Your task to perform on an android device: turn off notifications settings in the gmail app Image 0: 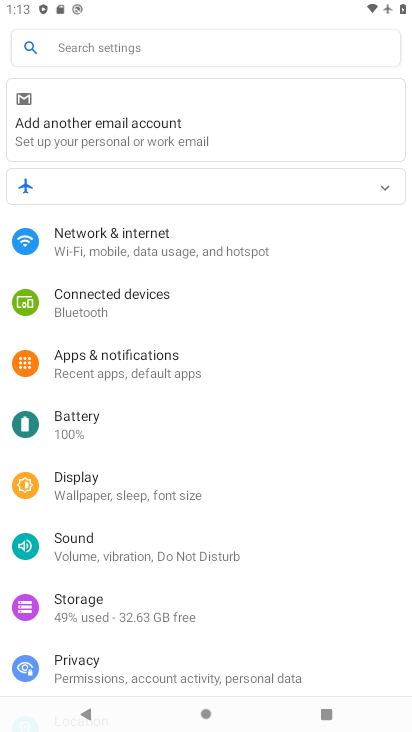
Step 0: press home button
Your task to perform on an android device: turn off notifications settings in the gmail app Image 1: 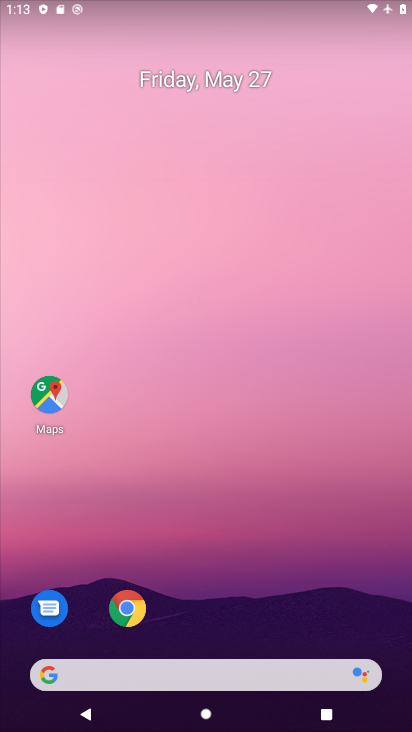
Step 1: drag from (169, 674) to (345, 101)
Your task to perform on an android device: turn off notifications settings in the gmail app Image 2: 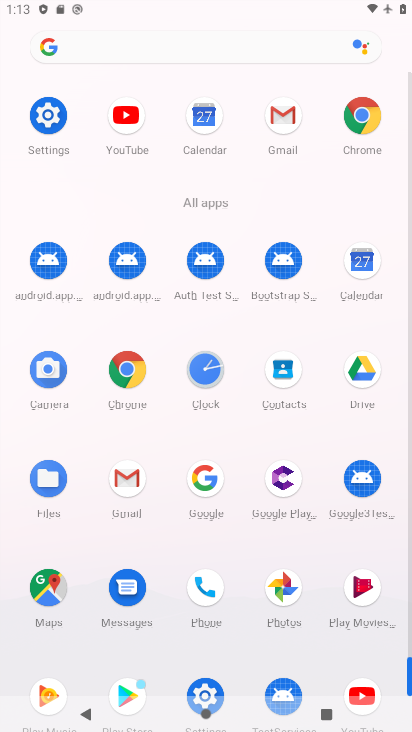
Step 2: click (288, 128)
Your task to perform on an android device: turn off notifications settings in the gmail app Image 3: 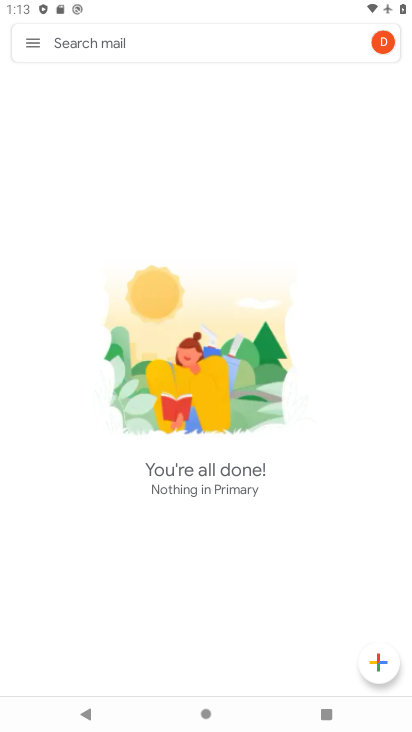
Step 3: click (33, 38)
Your task to perform on an android device: turn off notifications settings in the gmail app Image 4: 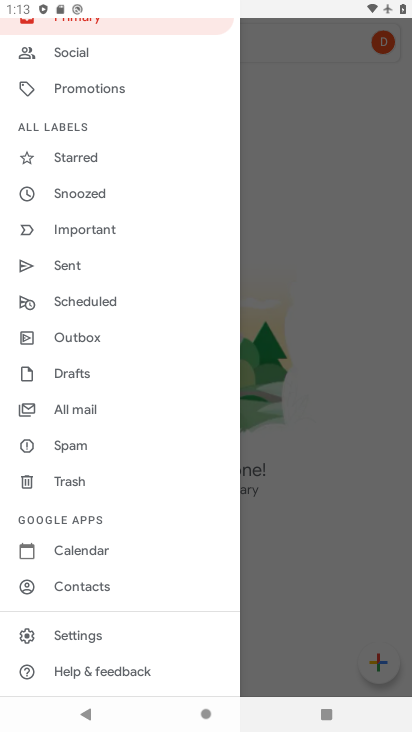
Step 4: click (100, 632)
Your task to perform on an android device: turn off notifications settings in the gmail app Image 5: 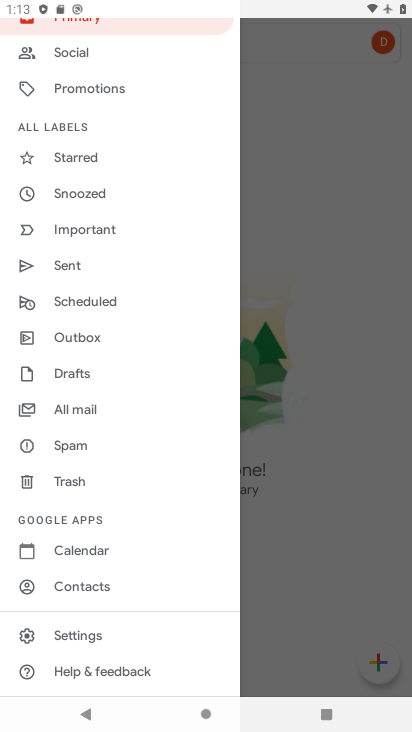
Step 5: click (77, 637)
Your task to perform on an android device: turn off notifications settings in the gmail app Image 6: 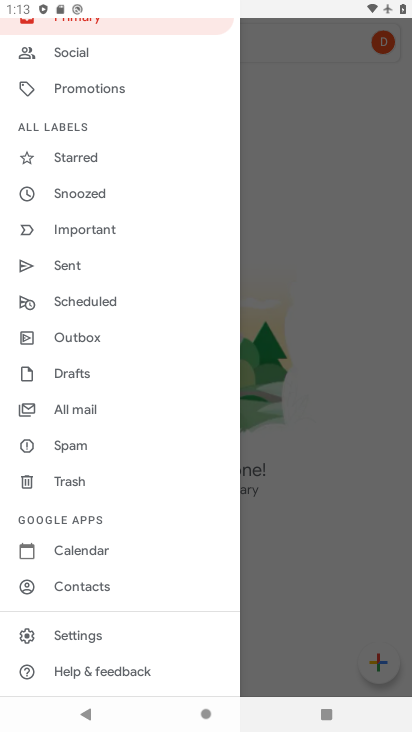
Step 6: click (85, 631)
Your task to perform on an android device: turn off notifications settings in the gmail app Image 7: 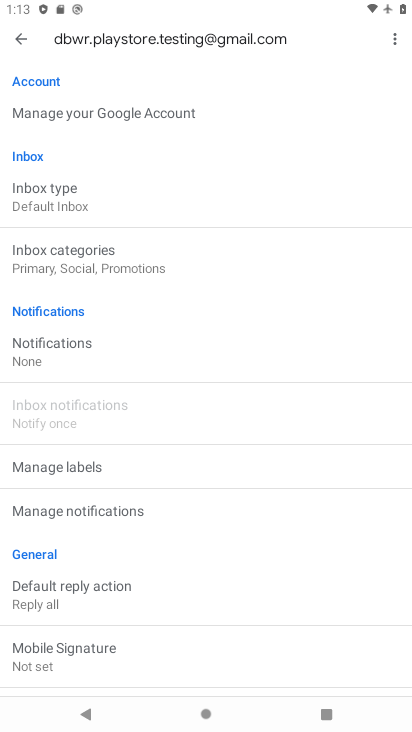
Step 7: click (60, 346)
Your task to perform on an android device: turn off notifications settings in the gmail app Image 8: 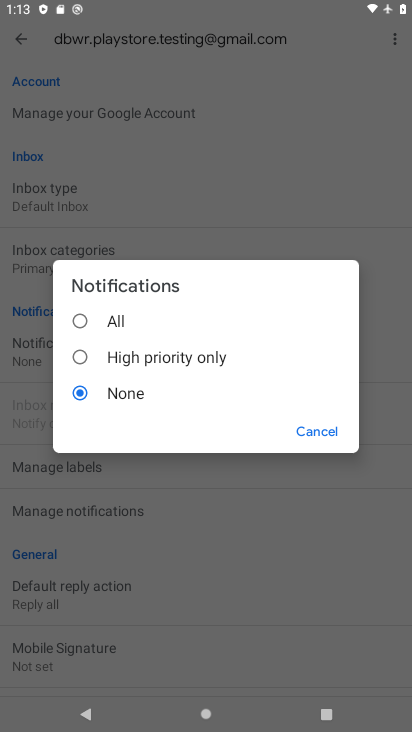
Step 8: task complete